Your task to perform on an android device: Open Google Maps Image 0: 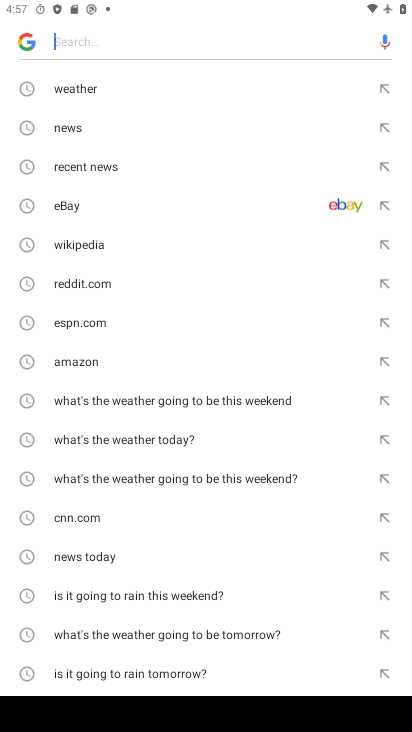
Step 0: press home button
Your task to perform on an android device: Open Google Maps Image 1: 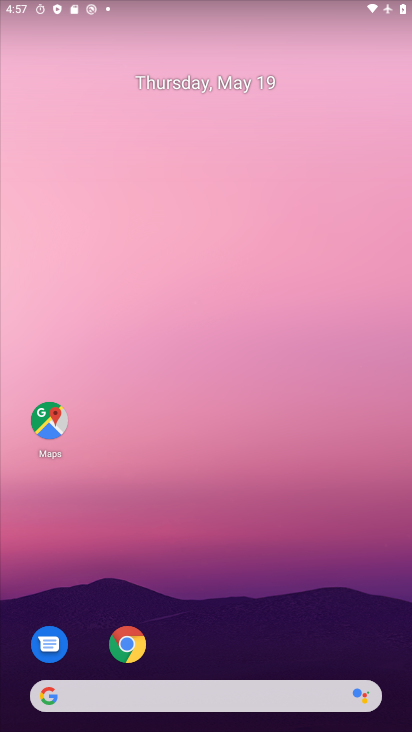
Step 1: click (57, 414)
Your task to perform on an android device: Open Google Maps Image 2: 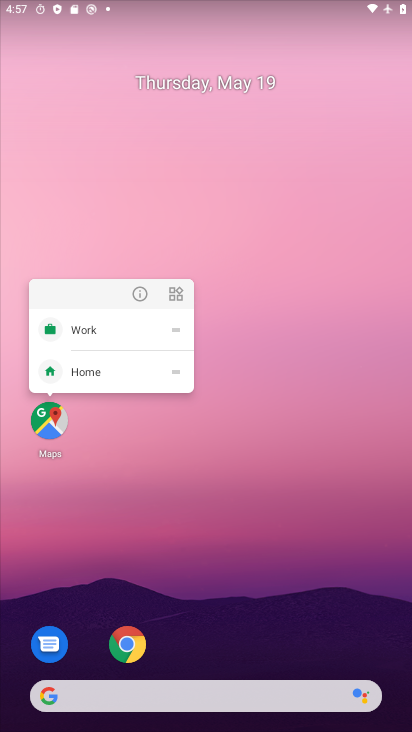
Step 2: click (57, 422)
Your task to perform on an android device: Open Google Maps Image 3: 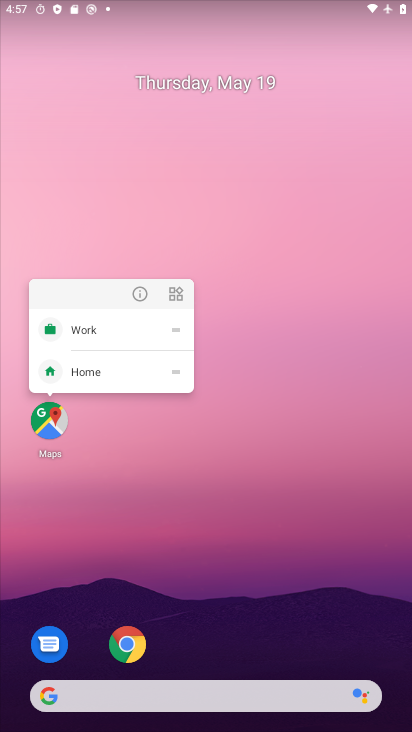
Step 3: click (53, 421)
Your task to perform on an android device: Open Google Maps Image 4: 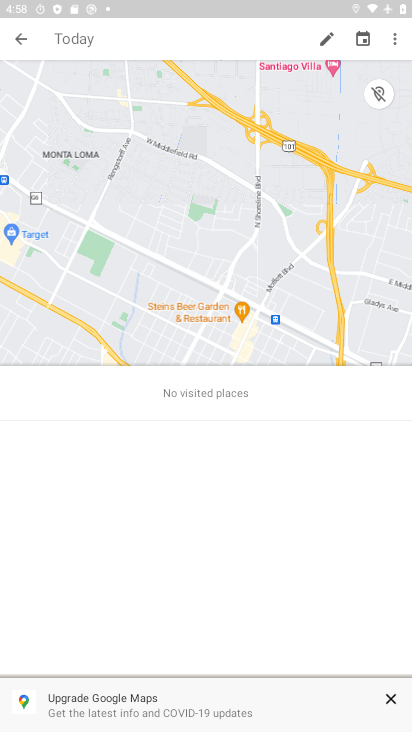
Step 4: click (23, 37)
Your task to perform on an android device: Open Google Maps Image 5: 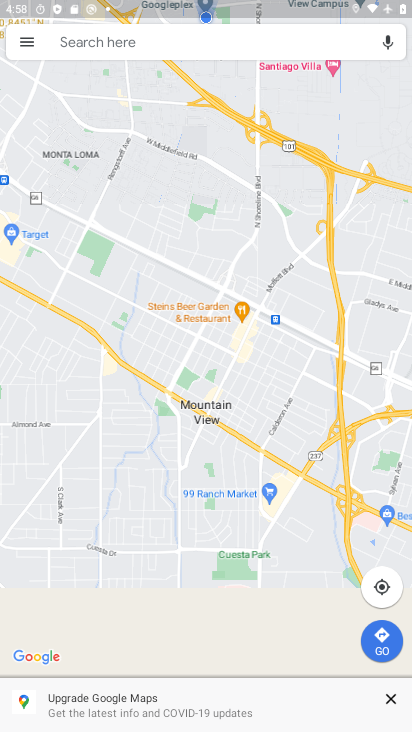
Step 5: task complete